Your task to perform on an android device: Go to Google maps Image 0: 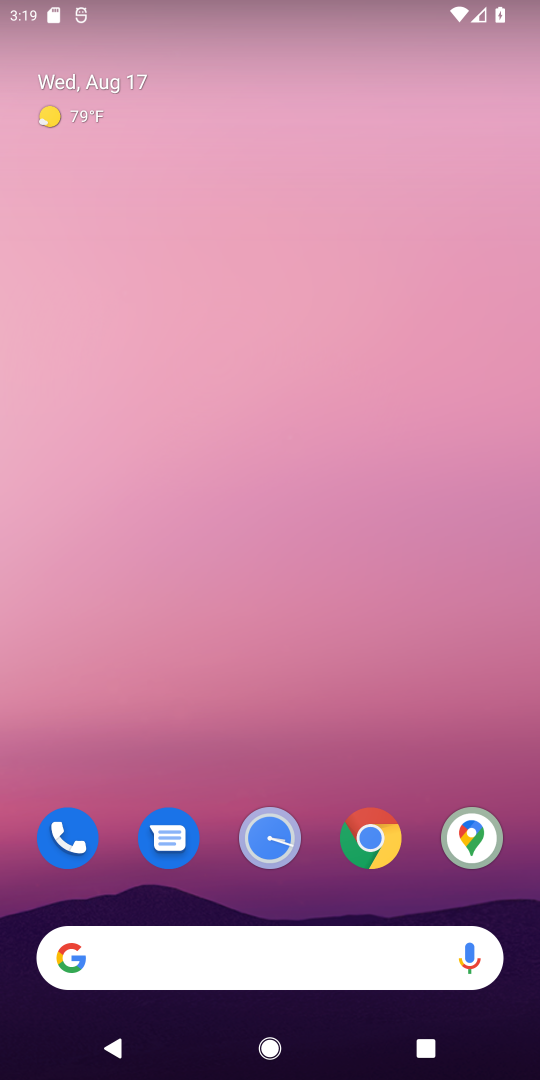
Step 0: click (473, 835)
Your task to perform on an android device: Go to Google maps Image 1: 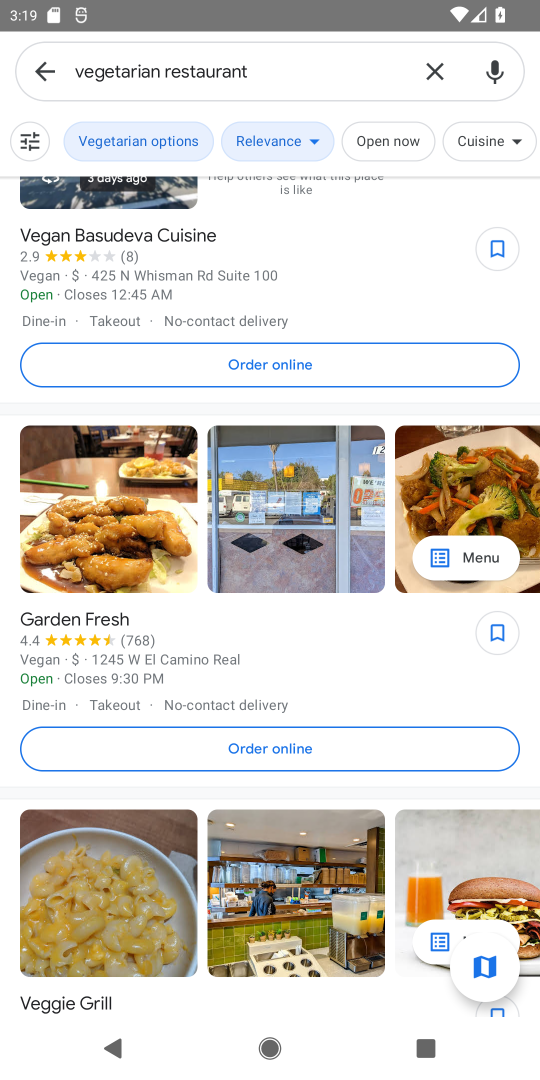
Step 1: click (419, 74)
Your task to perform on an android device: Go to Google maps Image 2: 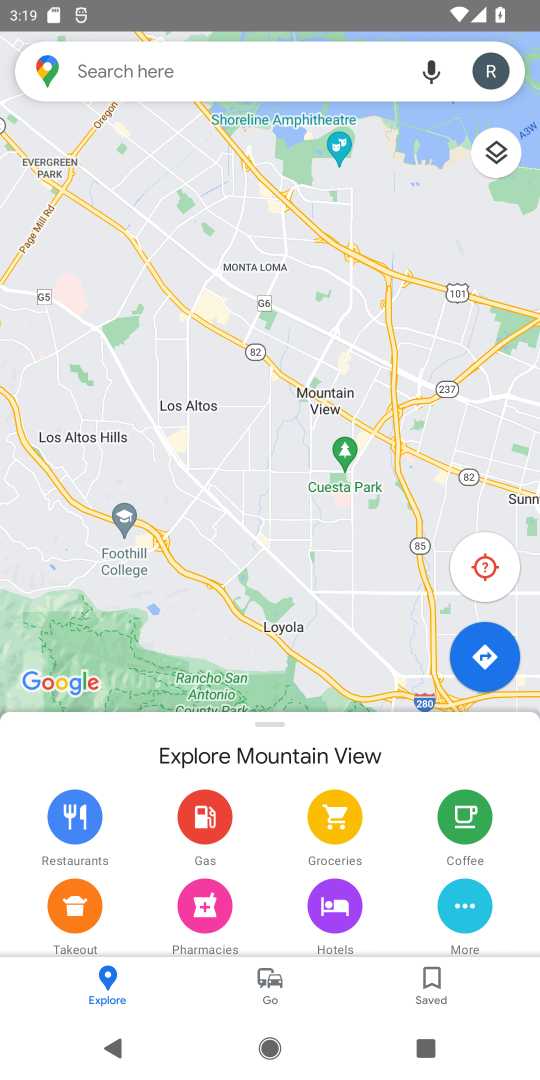
Step 2: task complete